Your task to perform on an android device: turn off notifications settings in the gmail app Image 0: 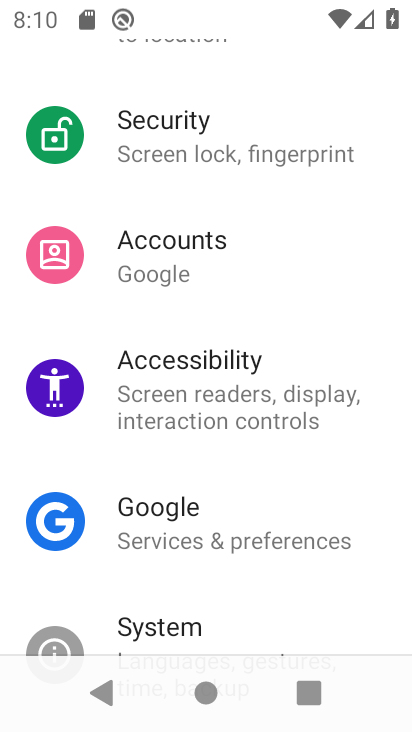
Step 0: press home button
Your task to perform on an android device: turn off notifications settings in the gmail app Image 1: 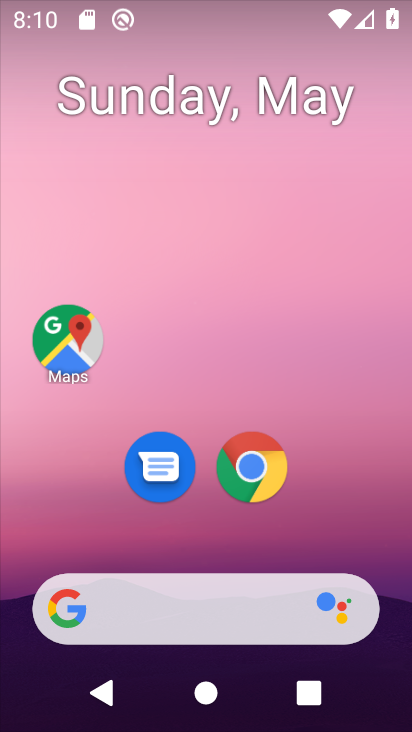
Step 1: drag from (362, 487) to (315, 128)
Your task to perform on an android device: turn off notifications settings in the gmail app Image 2: 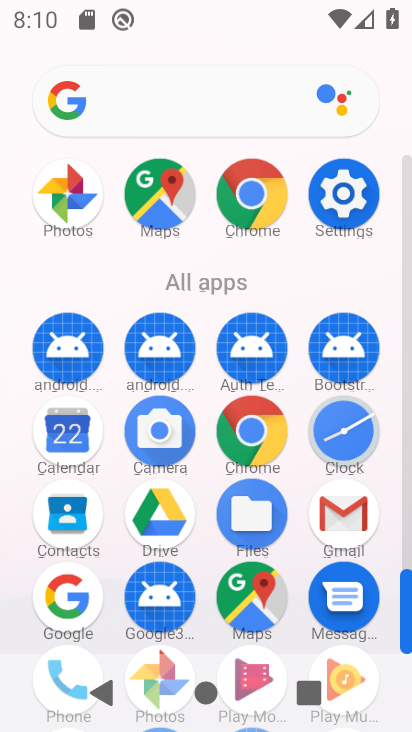
Step 2: click (366, 529)
Your task to perform on an android device: turn off notifications settings in the gmail app Image 3: 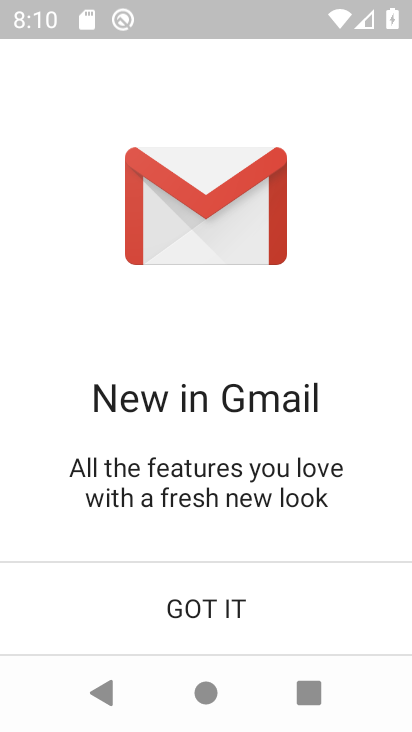
Step 3: click (207, 617)
Your task to perform on an android device: turn off notifications settings in the gmail app Image 4: 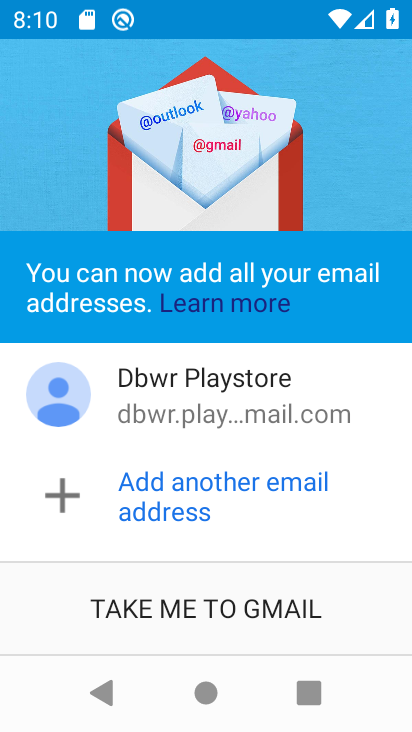
Step 4: click (201, 605)
Your task to perform on an android device: turn off notifications settings in the gmail app Image 5: 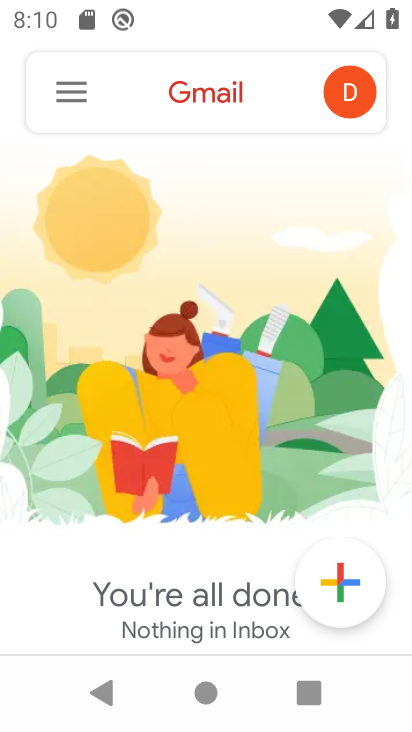
Step 5: click (70, 102)
Your task to perform on an android device: turn off notifications settings in the gmail app Image 6: 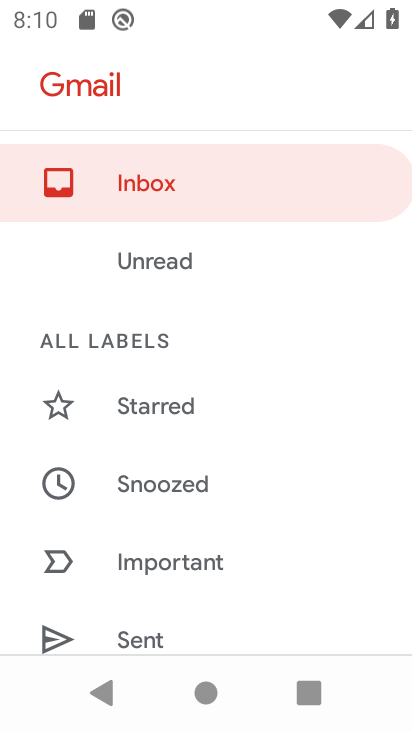
Step 6: drag from (226, 596) to (228, 139)
Your task to perform on an android device: turn off notifications settings in the gmail app Image 7: 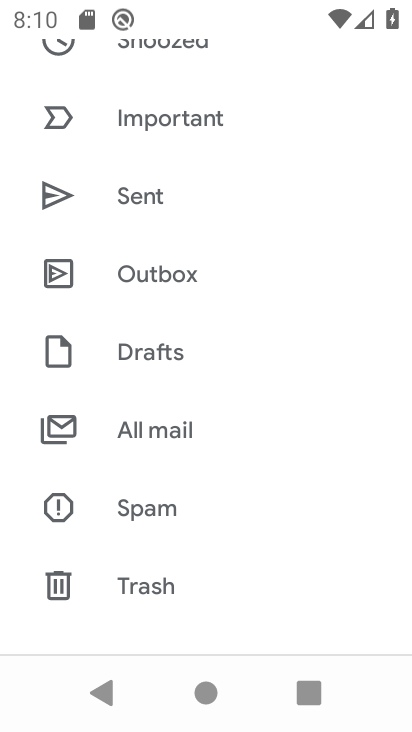
Step 7: drag from (247, 636) to (236, 250)
Your task to perform on an android device: turn off notifications settings in the gmail app Image 8: 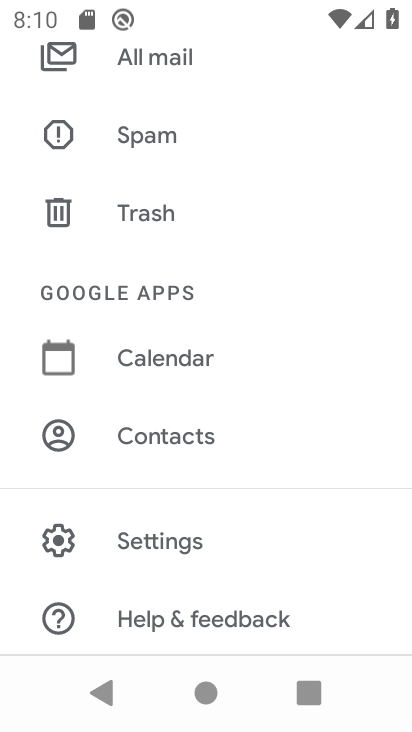
Step 8: click (135, 538)
Your task to perform on an android device: turn off notifications settings in the gmail app Image 9: 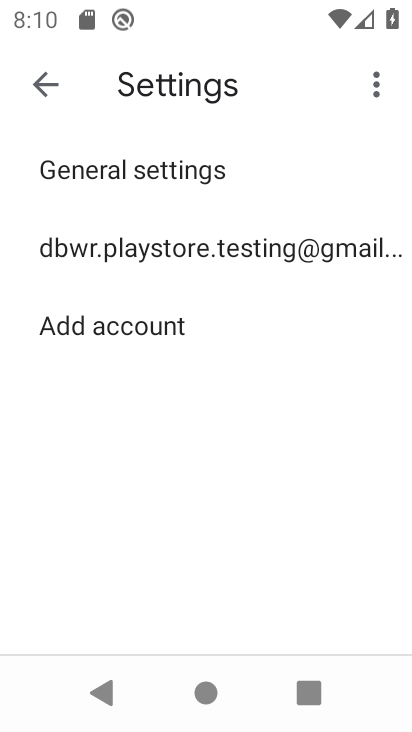
Step 9: click (240, 252)
Your task to perform on an android device: turn off notifications settings in the gmail app Image 10: 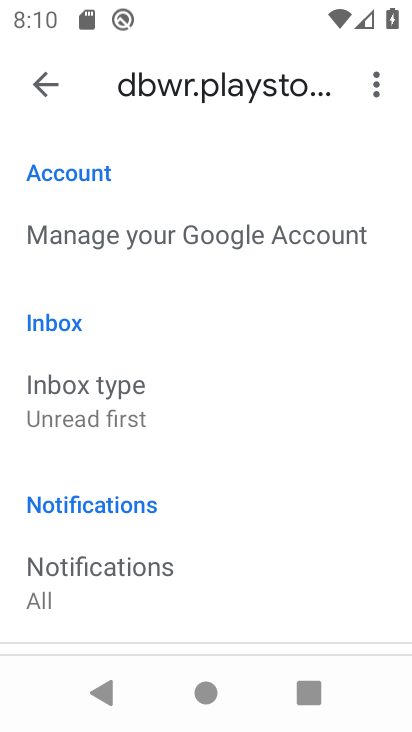
Step 10: drag from (273, 591) to (228, 329)
Your task to perform on an android device: turn off notifications settings in the gmail app Image 11: 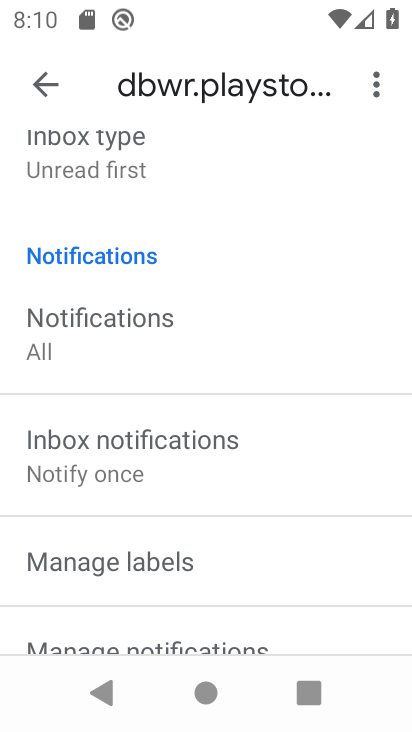
Step 11: click (105, 333)
Your task to perform on an android device: turn off notifications settings in the gmail app Image 12: 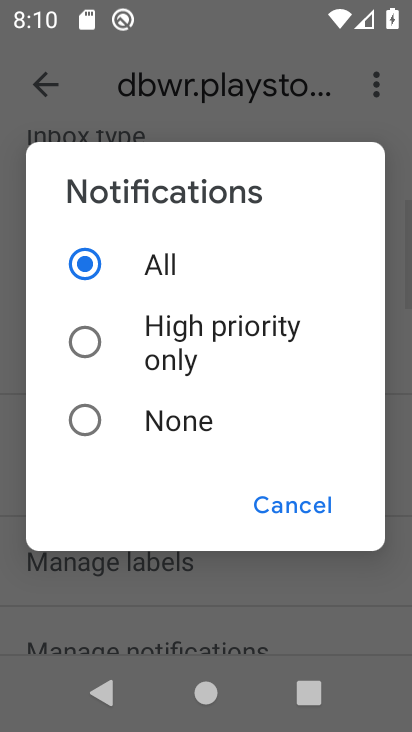
Step 12: click (91, 421)
Your task to perform on an android device: turn off notifications settings in the gmail app Image 13: 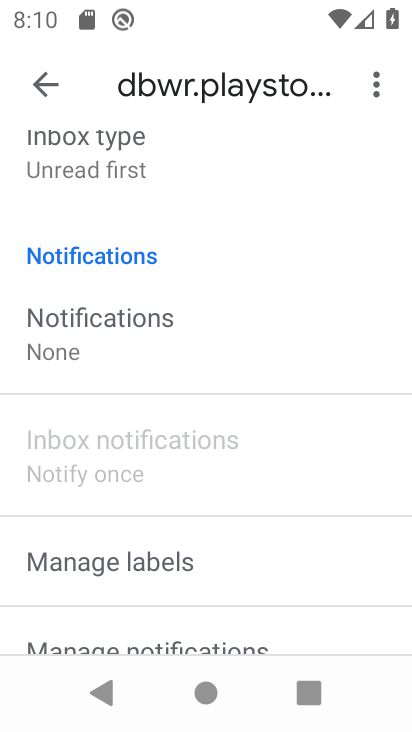
Step 13: task complete